Your task to perform on an android device: toggle wifi Image 0: 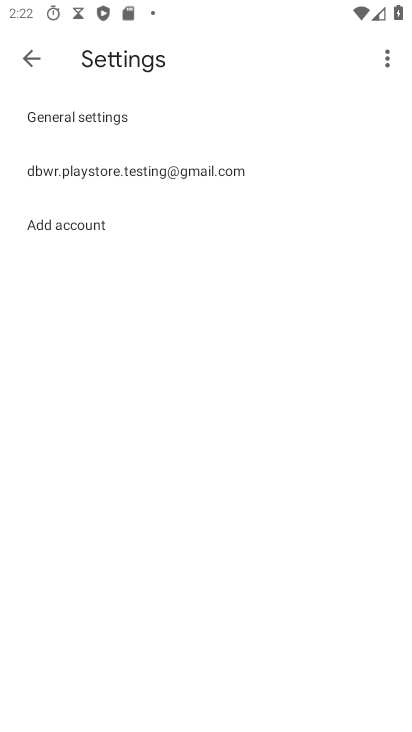
Step 0: click (148, 164)
Your task to perform on an android device: toggle wifi Image 1: 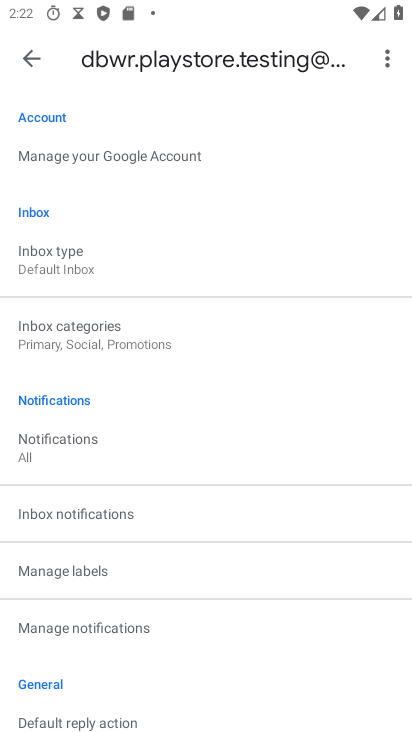
Step 1: drag from (179, 589) to (304, 280)
Your task to perform on an android device: toggle wifi Image 2: 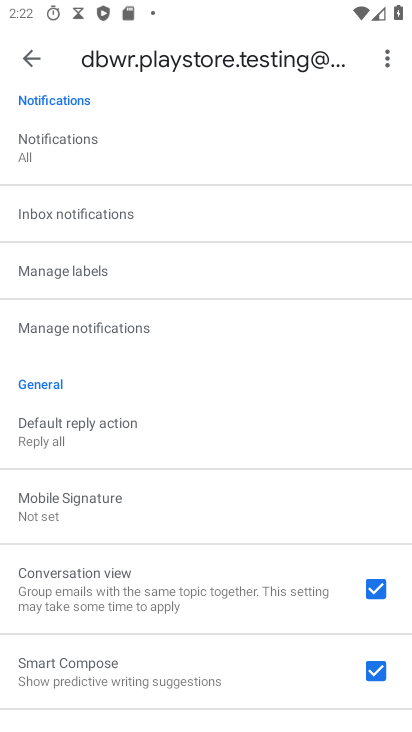
Step 2: press home button
Your task to perform on an android device: toggle wifi Image 3: 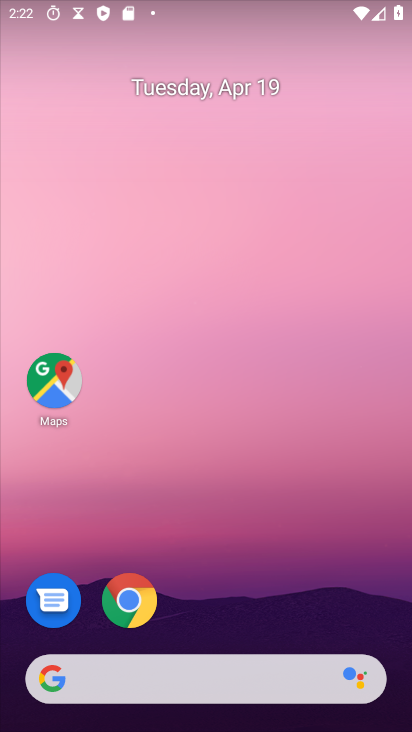
Step 3: drag from (271, 700) to (365, 254)
Your task to perform on an android device: toggle wifi Image 4: 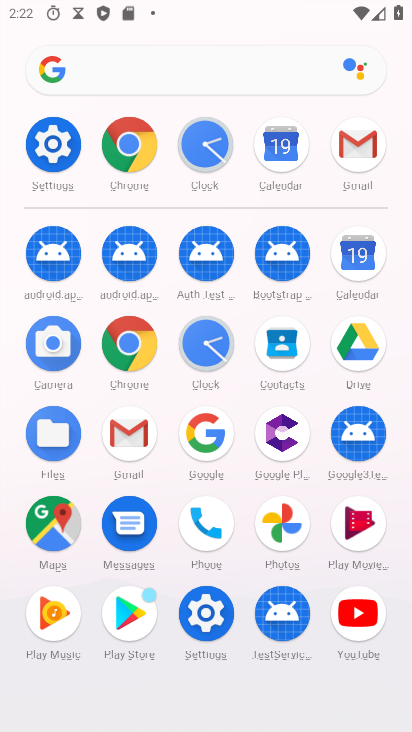
Step 4: click (202, 596)
Your task to perform on an android device: toggle wifi Image 5: 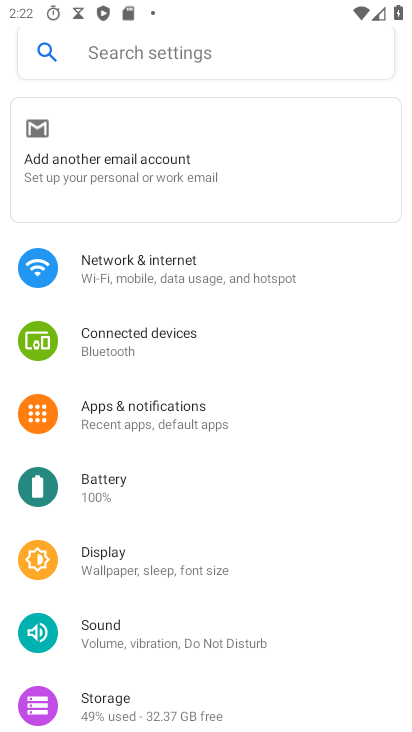
Step 5: click (214, 294)
Your task to perform on an android device: toggle wifi Image 6: 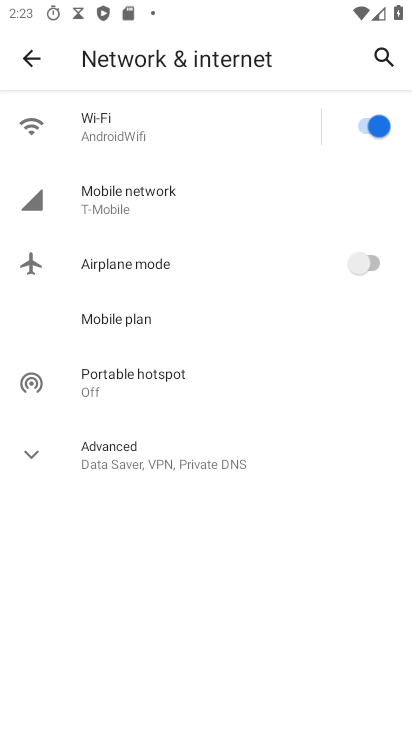
Step 6: click (179, 127)
Your task to perform on an android device: toggle wifi Image 7: 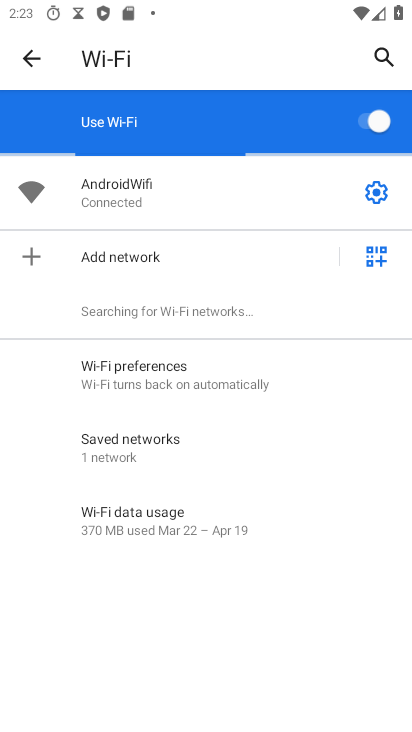
Step 7: click (132, 182)
Your task to perform on an android device: toggle wifi Image 8: 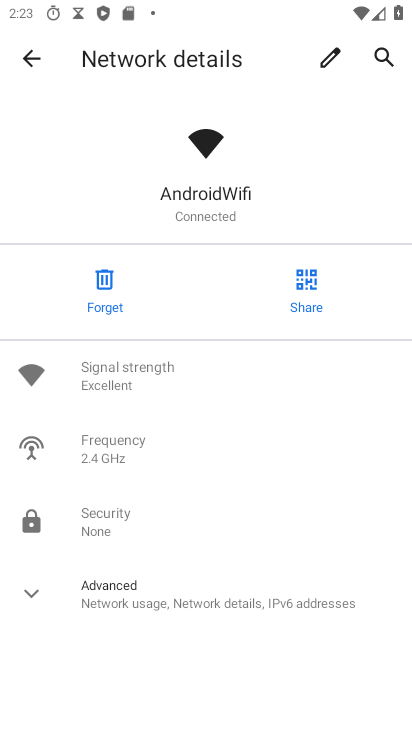
Step 8: click (26, 58)
Your task to perform on an android device: toggle wifi Image 9: 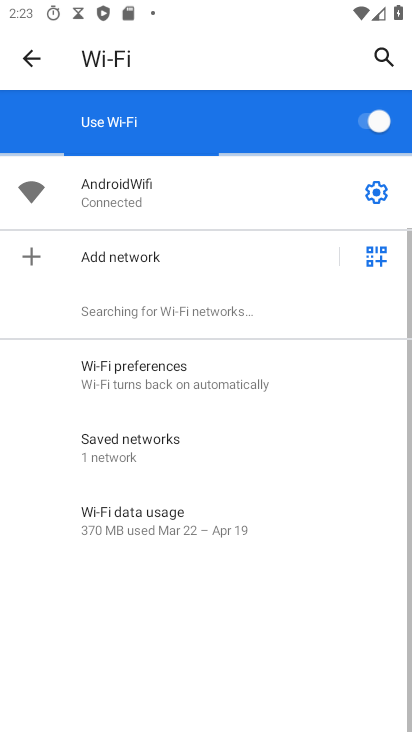
Step 9: task complete